Your task to perform on an android device: open a bookmark in the chrome app Image 0: 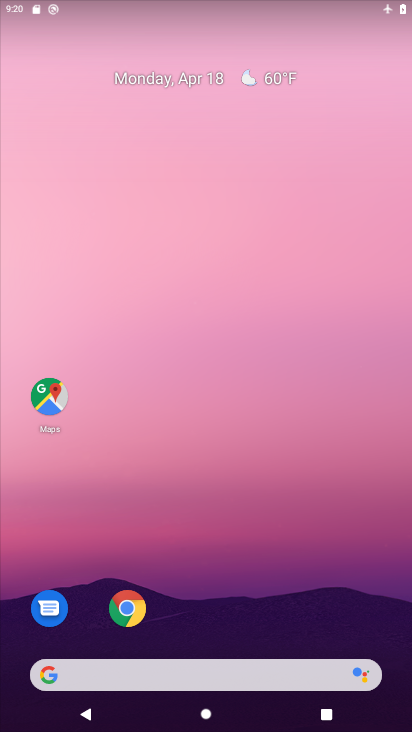
Step 0: drag from (354, 377) to (342, 157)
Your task to perform on an android device: open a bookmark in the chrome app Image 1: 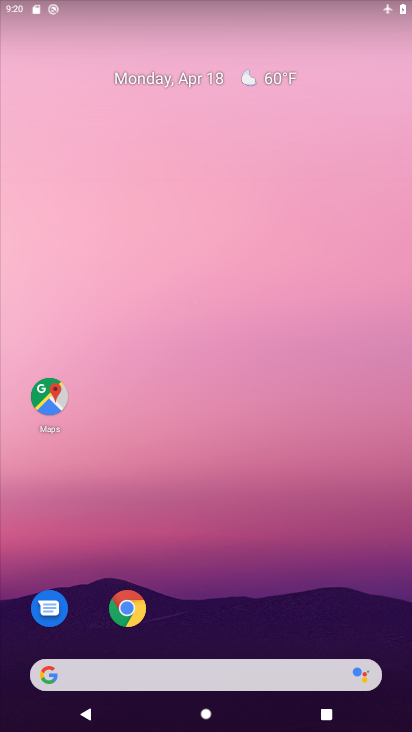
Step 1: drag from (339, 555) to (302, 181)
Your task to perform on an android device: open a bookmark in the chrome app Image 2: 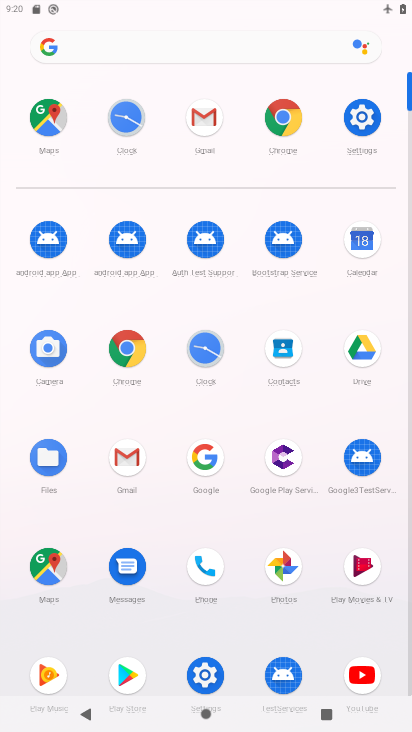
Step 2: click (130, 348)
Your task to perform on an android device: open a bookmark in the chrome app Image 3: 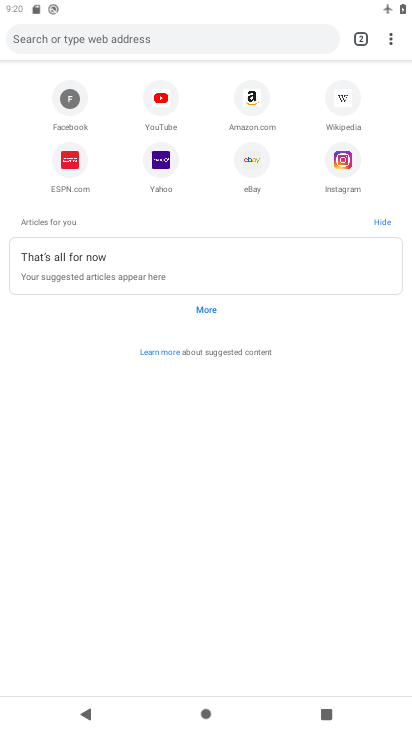
Step 3: click (390, 38)
Your task to perform on an android device: open a bookmark in the chrome app Image 4: 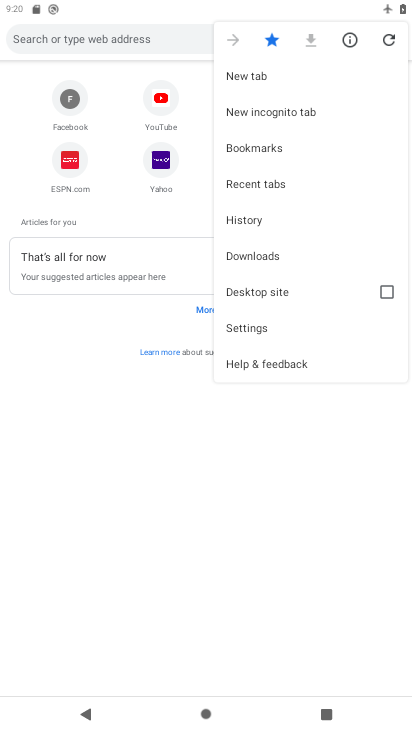
Step 4: click (274, 153)
Your task to perform on an android device: open a bookmark in the chrome app Image 5: 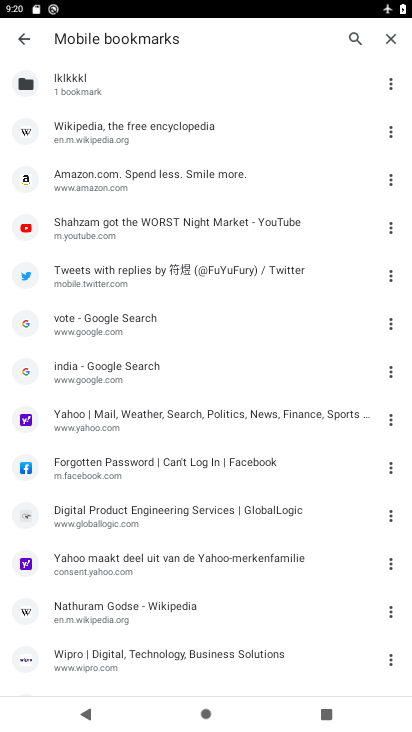
Step 5: task complete